Your task to perform on an android device: Open Google Chrome and open the bookmarks view Image 0: 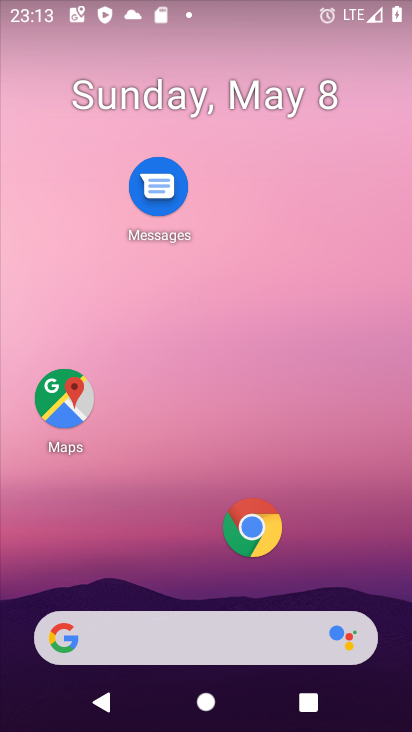
Step 0: click (249, 525)
Your task to perform on an android device: Open Google Chrome and open the bookmarks view Image 1: 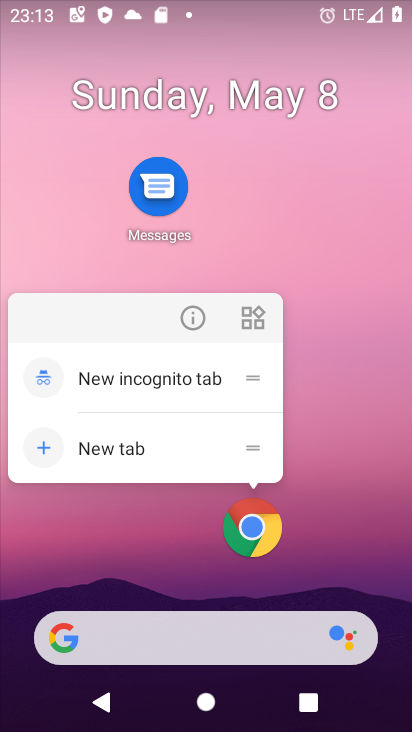
Step 1: click (249, 525)
Your task to perform on an android device: Open Google Chrome and open the bookmarks view Image 2: 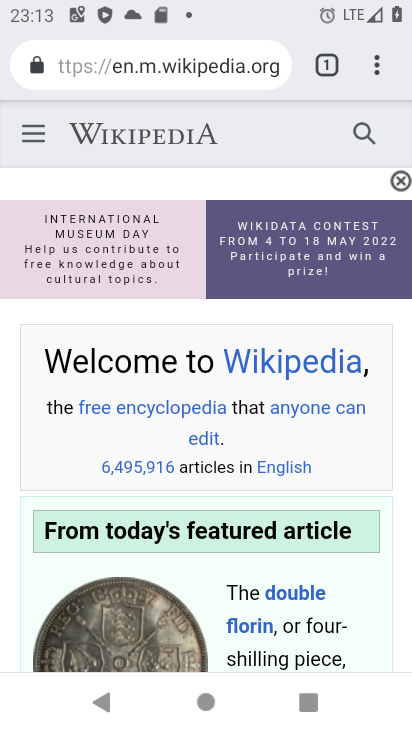
Step 2: click (370, 68)
Your task to perform on an android device: Open Google Chrome and open the bookmarks view Image 3: 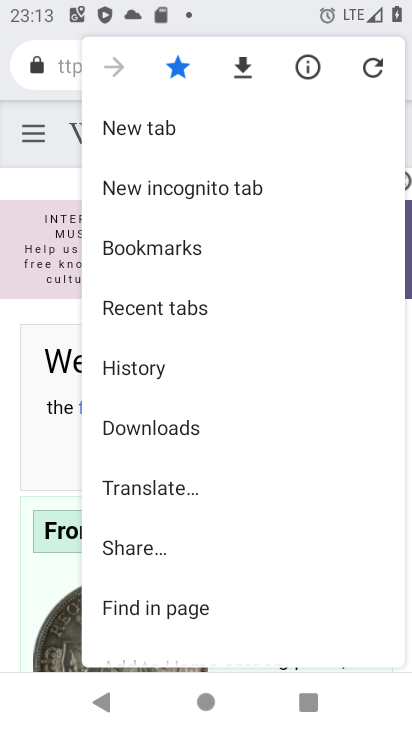
Step 3: click (207, 255)
Your task to perform on an android device: Open Google Chrome and open the bookmarks view Image 4: 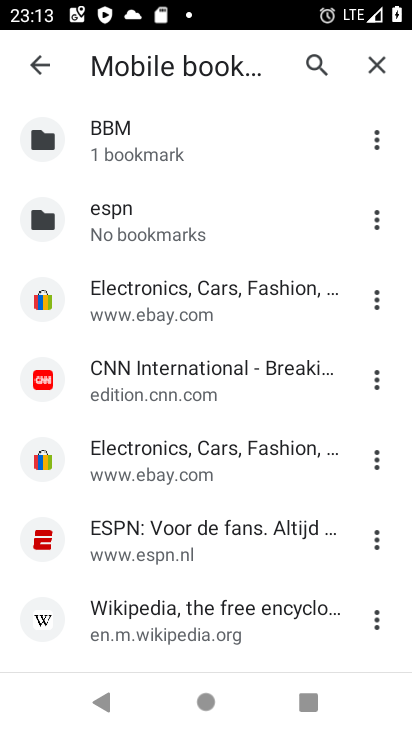
Step 4: drag from (245, 532) to (225, 222)
Your task to perform on an android device: Open Google Chrome and open the bookmarks view Image 5: 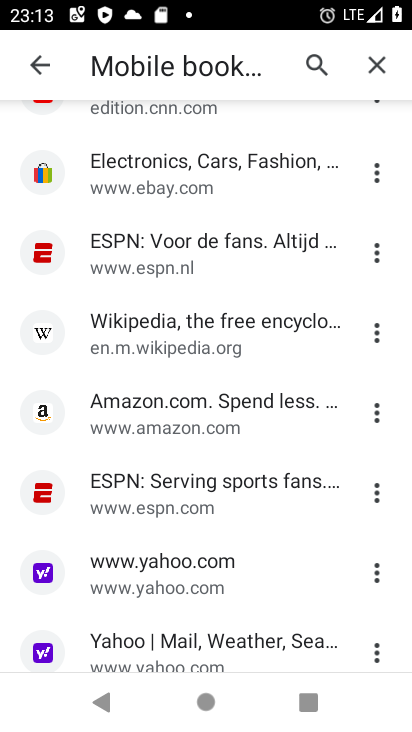
Step 5: click (171, 322)
Your task to perform on an android device: Open Google Chrome and open the bookmarks view Image 6: 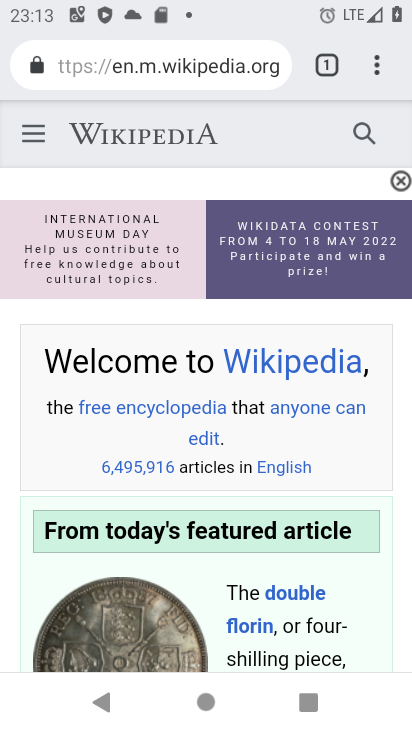
Step 6: task complete